Your task to perform on an android device: Go to Google maps Image 0: 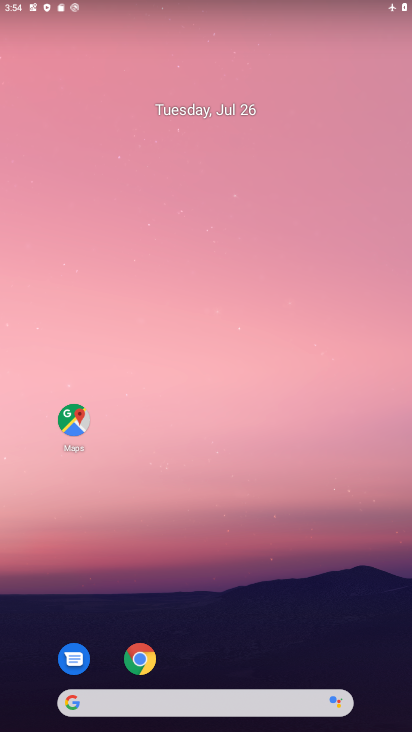
Step 0: drag from (200, 540) to (265, 19)
Your task to perform on an android device: Go to Google maps Image 1: 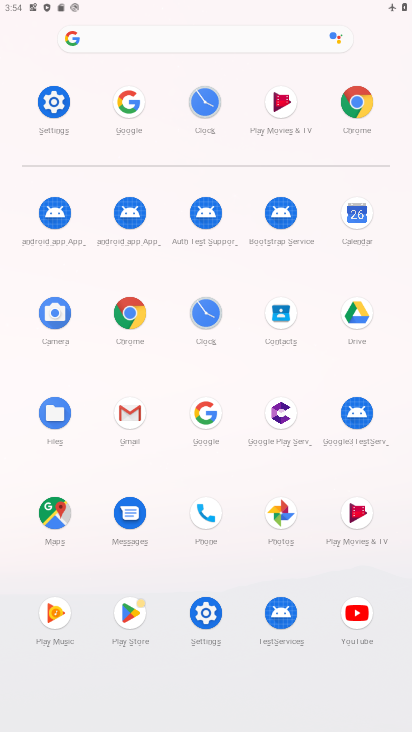
Step 1: click (63, 519)
Your task to perform on an android device: Go to Google maps Image 2: 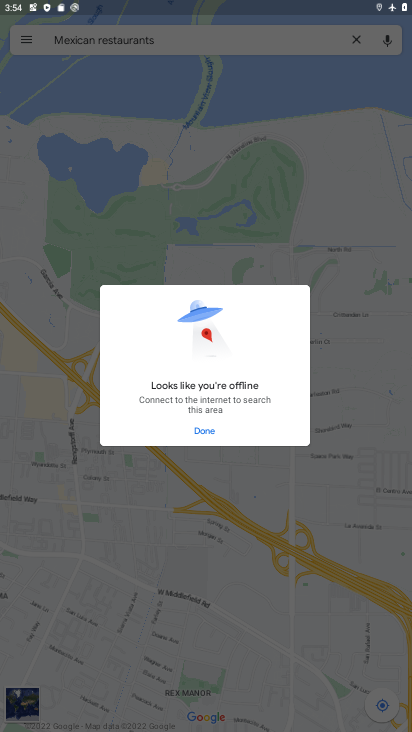
Step 2: click (213, 549)
Your task to perform on an android device: Go to Google maps Image 3: 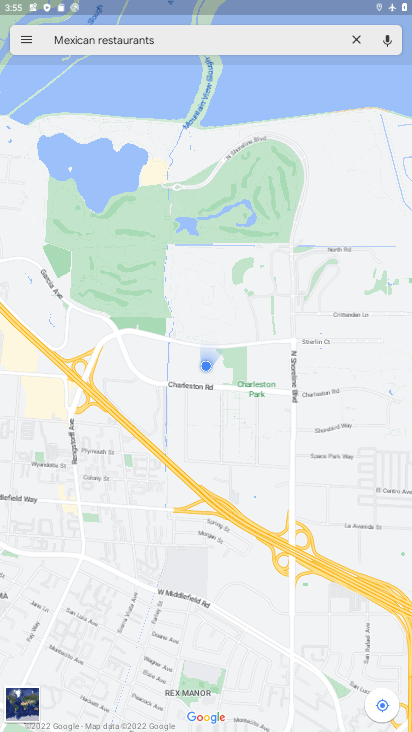
Step 3: task complete